Your task to perform on an android device: Go to privacy settings Image 0: 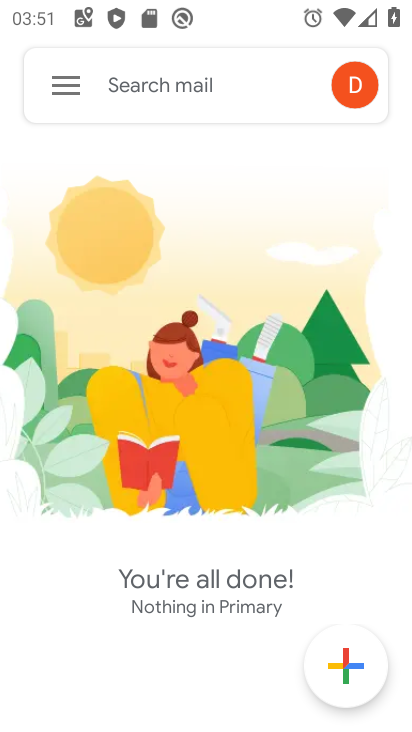
Step 0: press home button
Your task to perform on an android device: Go to privacy settings Image 1: 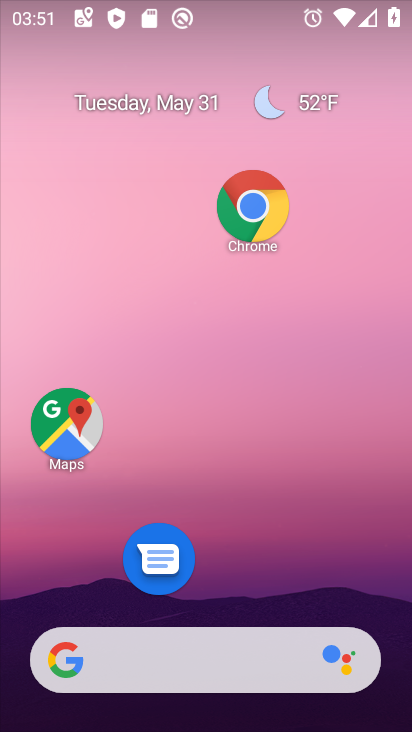
Step 1: drag from (238, 587) to (213, 89)
Your task to perform on an android device: Go to privacy settings Image 2: 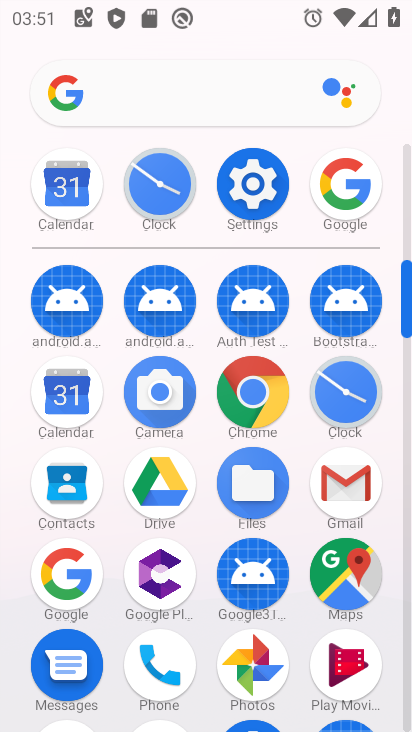
Step 2: click (244, 161)
Your task to perform on an android device: Go to privacy settings Image 3: 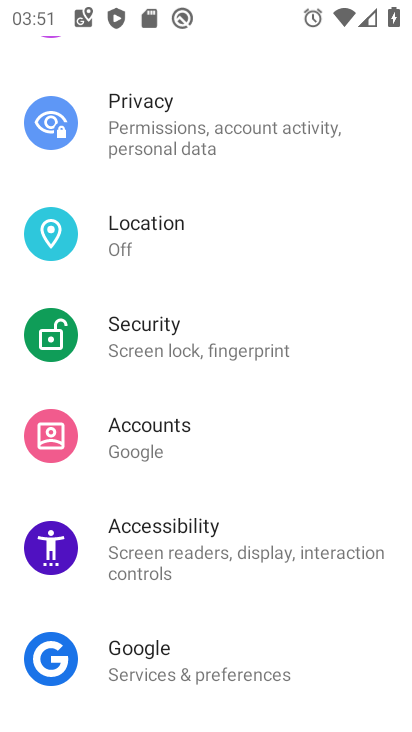
Step 3: click (181, 146)
Your task to perform on an android device: Go to privacy settings Image 4: 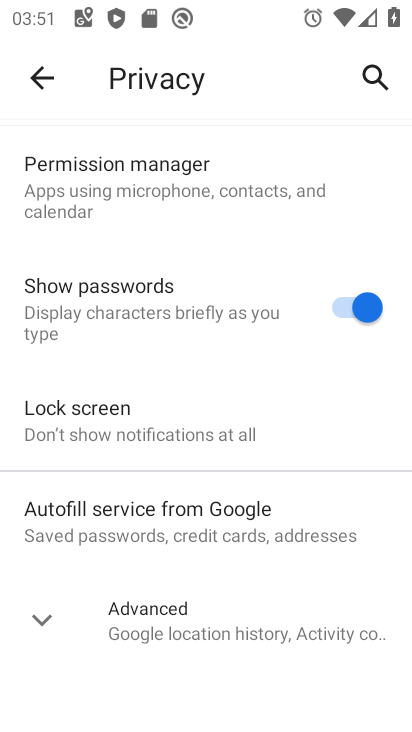
Step 4: task complete